Your task to perform on an android device: toggle airplane mode Image 0: 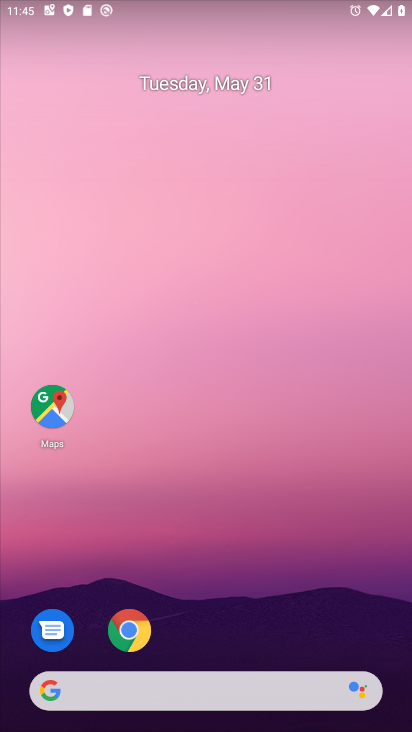
Step 0: drag from (194, 7) to (177, 613)
Your task to perform on an android device: toggle airplane mode Image 1: 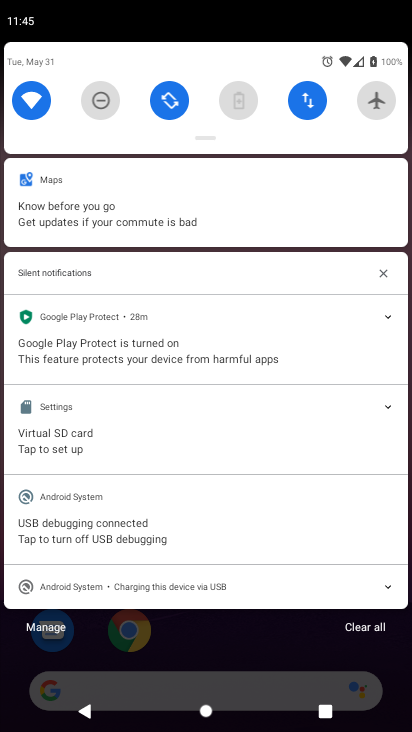
Step 1: click (373, 97)
Your task to perform on an android device: toggle airplane mode Image 2: 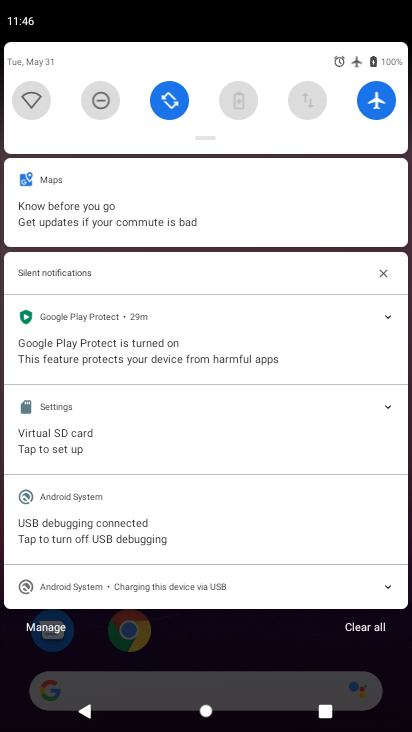
Step 2: task complete